Your task to perform on an android device: Open calendar and show me the first week of next month Image 0: 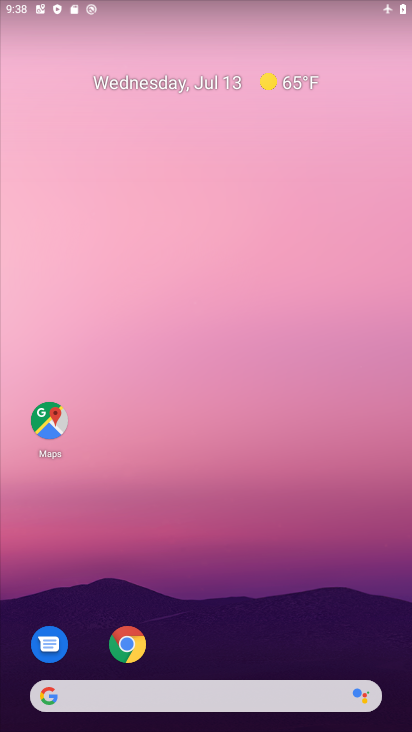
Step 0: drag from (274, 629) to (110, 141)
Your task to perform on an android device: Open calendar and show me the first week of next month Image 1: 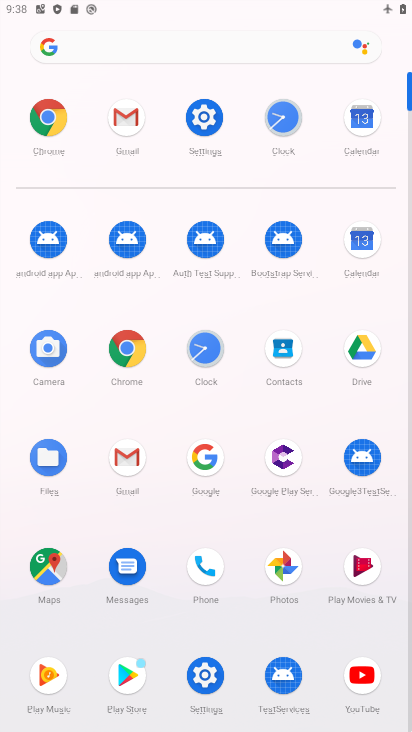
Step 1: click (345, 244)
Your task to perform on an android device: Open calendar and show me the first week of next month Image 2: 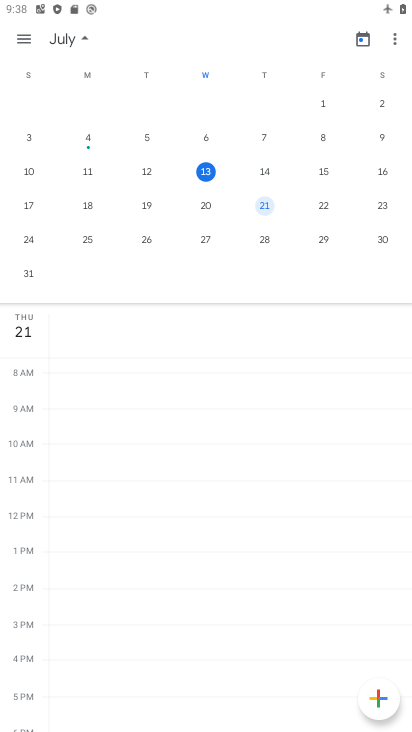
Step 2: drag from (324, 222) to (3, 143)
Your task to perform on an android device: Open calendar and show me the first week of next month Image 3: 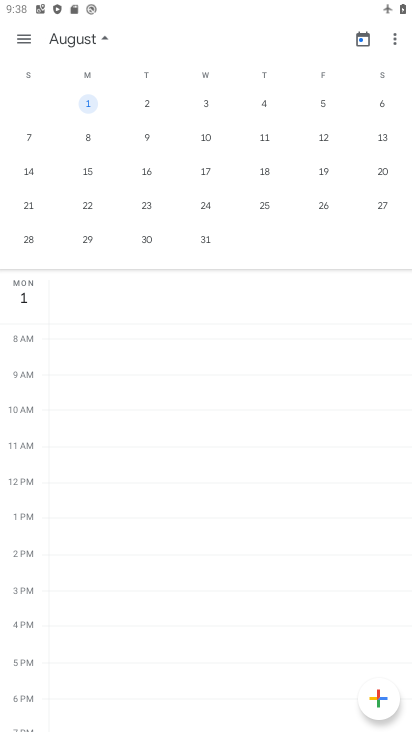
Step 3: click (385, 108)
Your task to perform on an android device: Open calendar and show me the first week of next month Image 4: 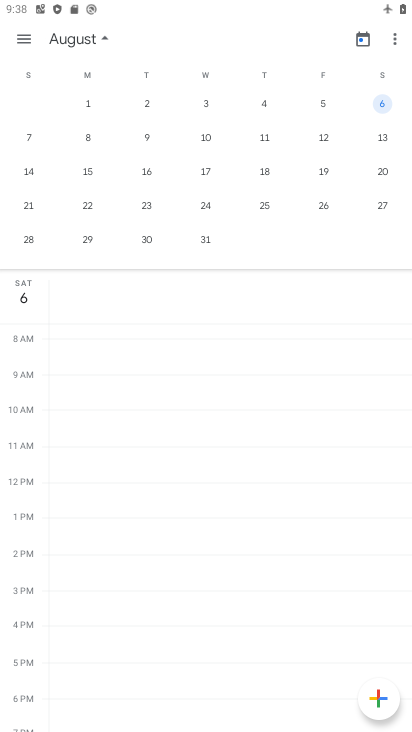
Step 4: task complete